Your task to perform on an android device: Search for energizer triple a on costco, select the first entry, add it to the cart, then select checkout. Image 0: 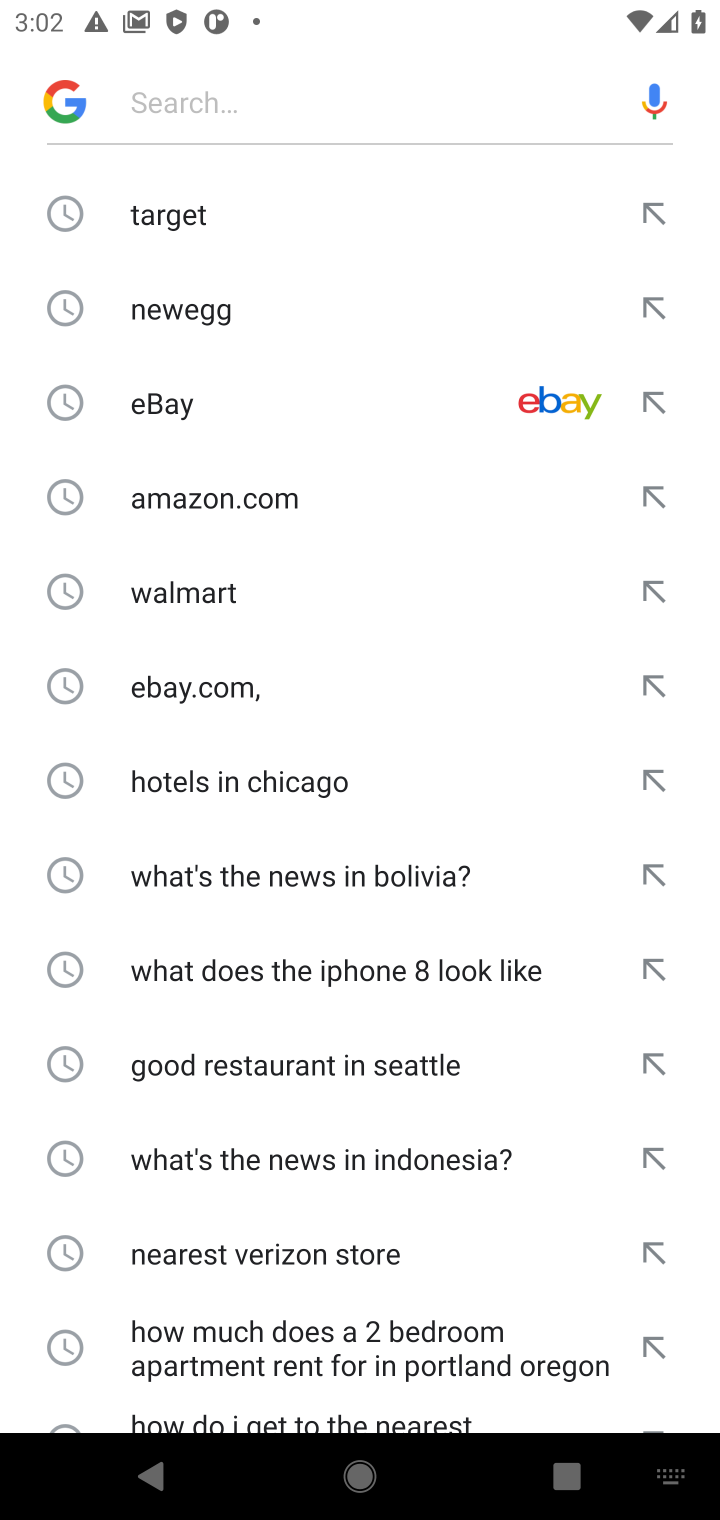
Step 0: type "costco"
Your task to perform on an android device: Search for energizer triple a on costco, select the first entry, add it to the cart, then select checkout. Image 1: 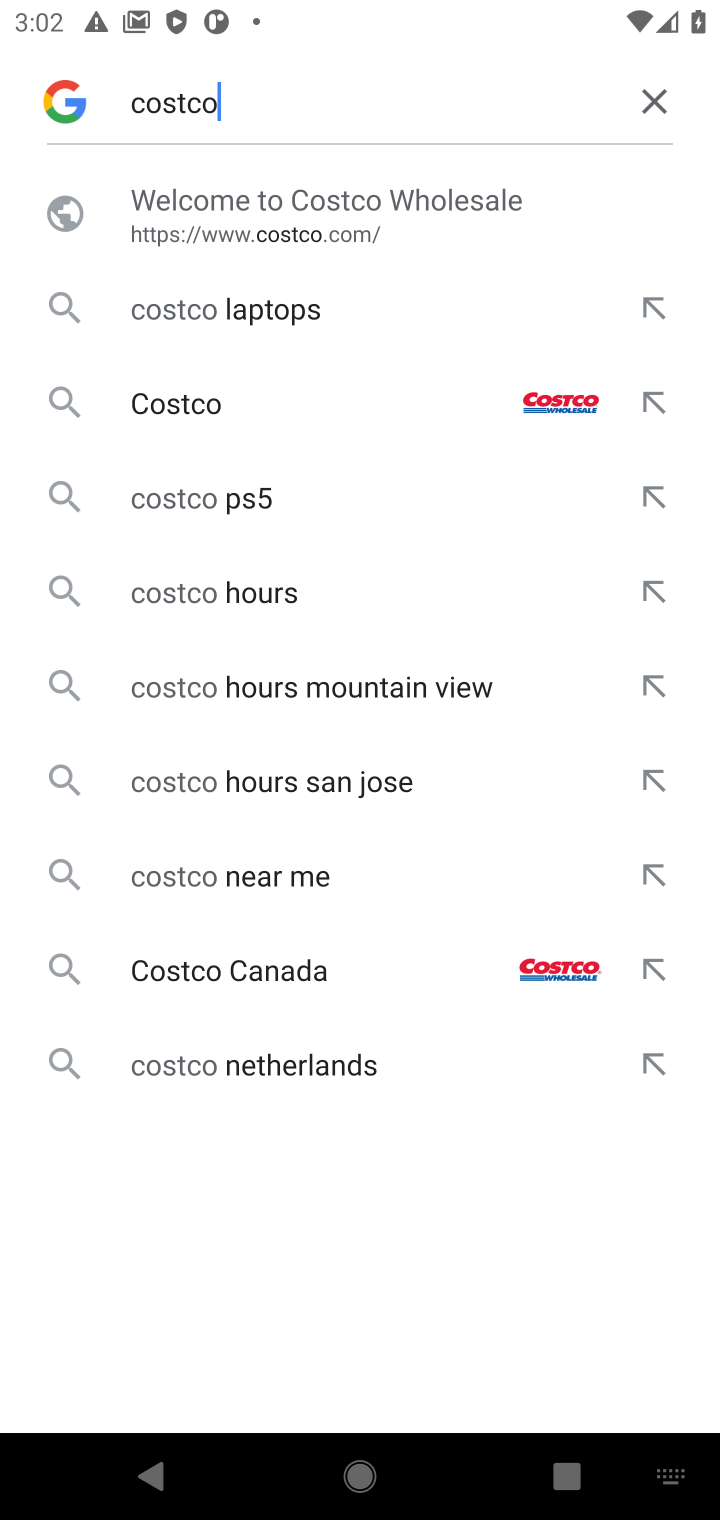
Step 1: click (197, 406)
Your task to perform on an android device: Search for energizer triple a on costco, select the first entry, add it to the cart, then select checkout. Image 2: 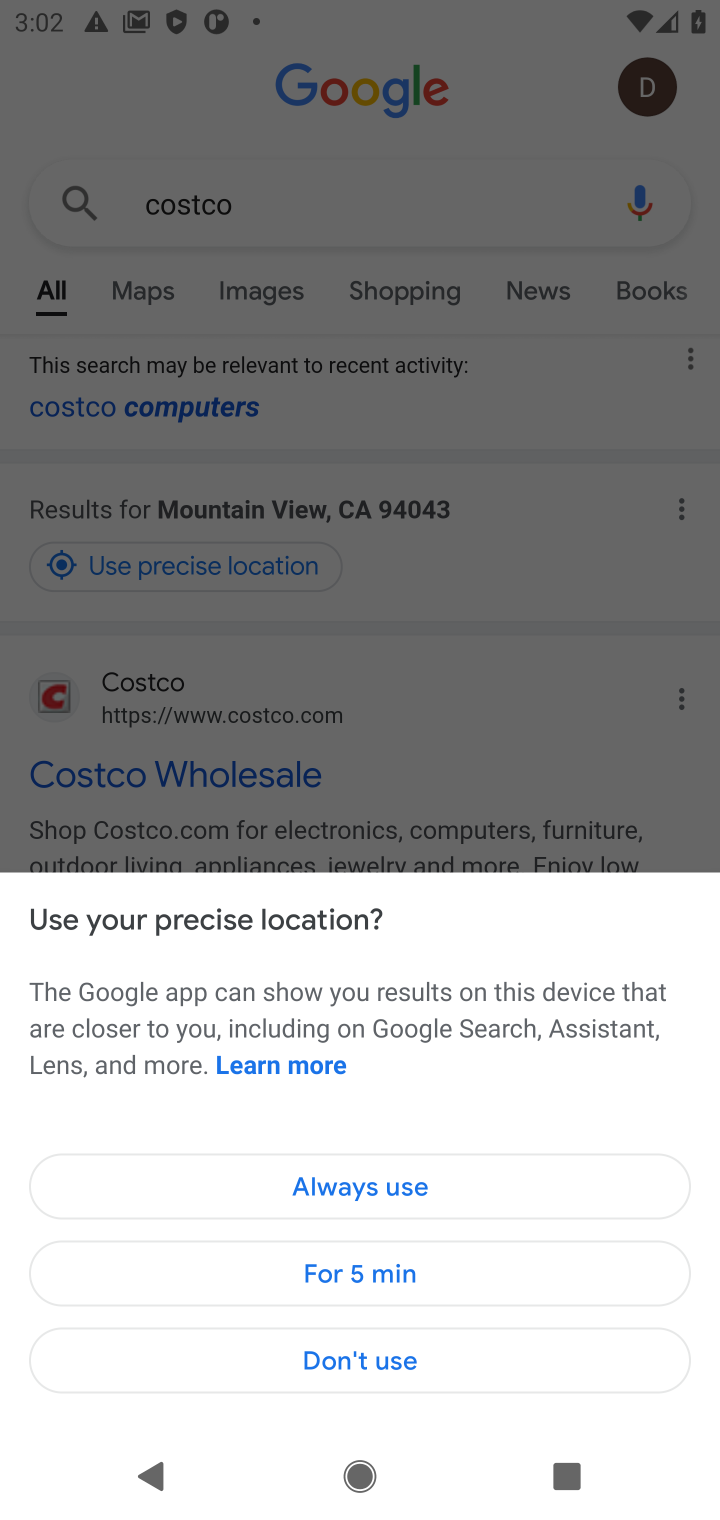
Step 2: click (345, 1361)
Your task to perform on an android device: Search for energizer triple a on costco, select the first entry, add it to the cart, then select checkout. Image 3: 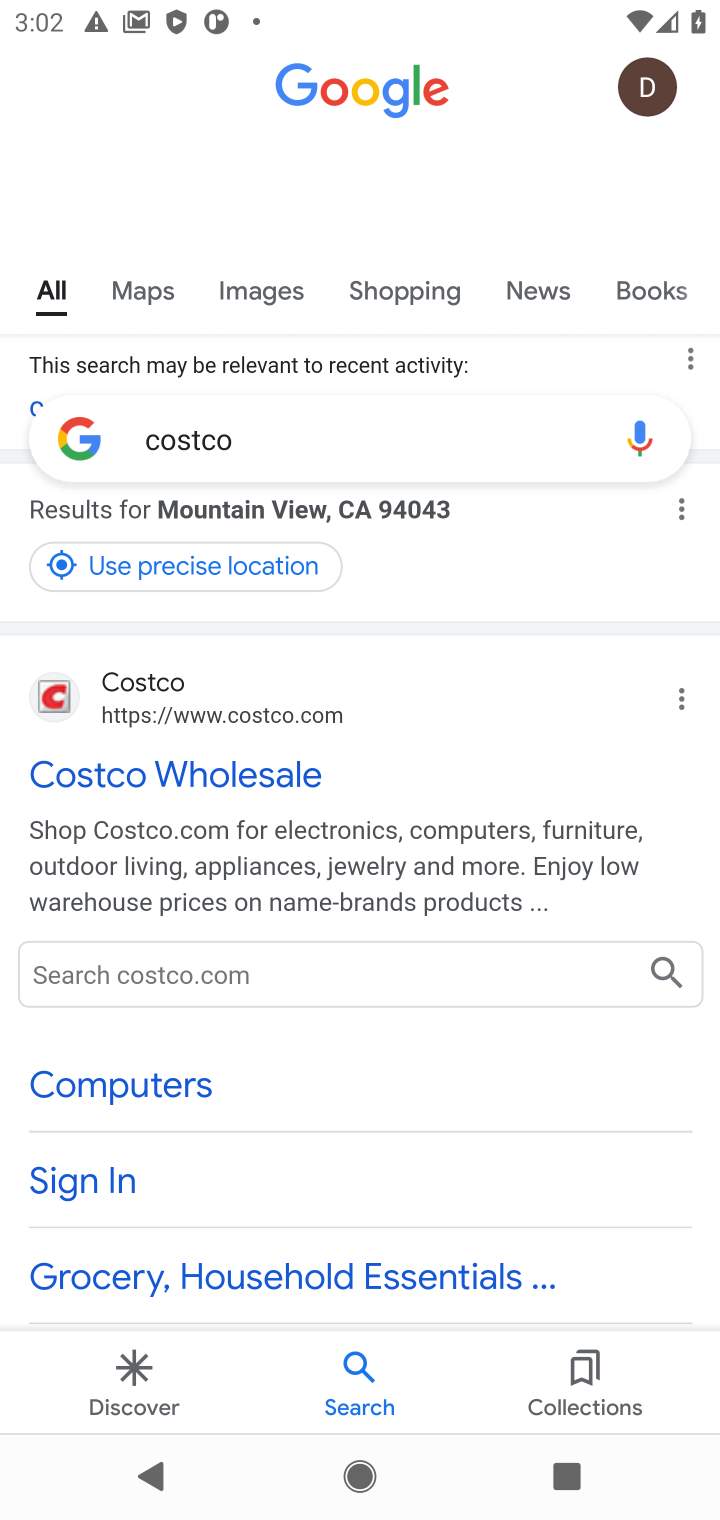
Step 3: click (172, 780)
Your task to perform on an android device: Search for energizer triple a on costco, select the first entry, add it to the cart, then select checkout. Image 4: 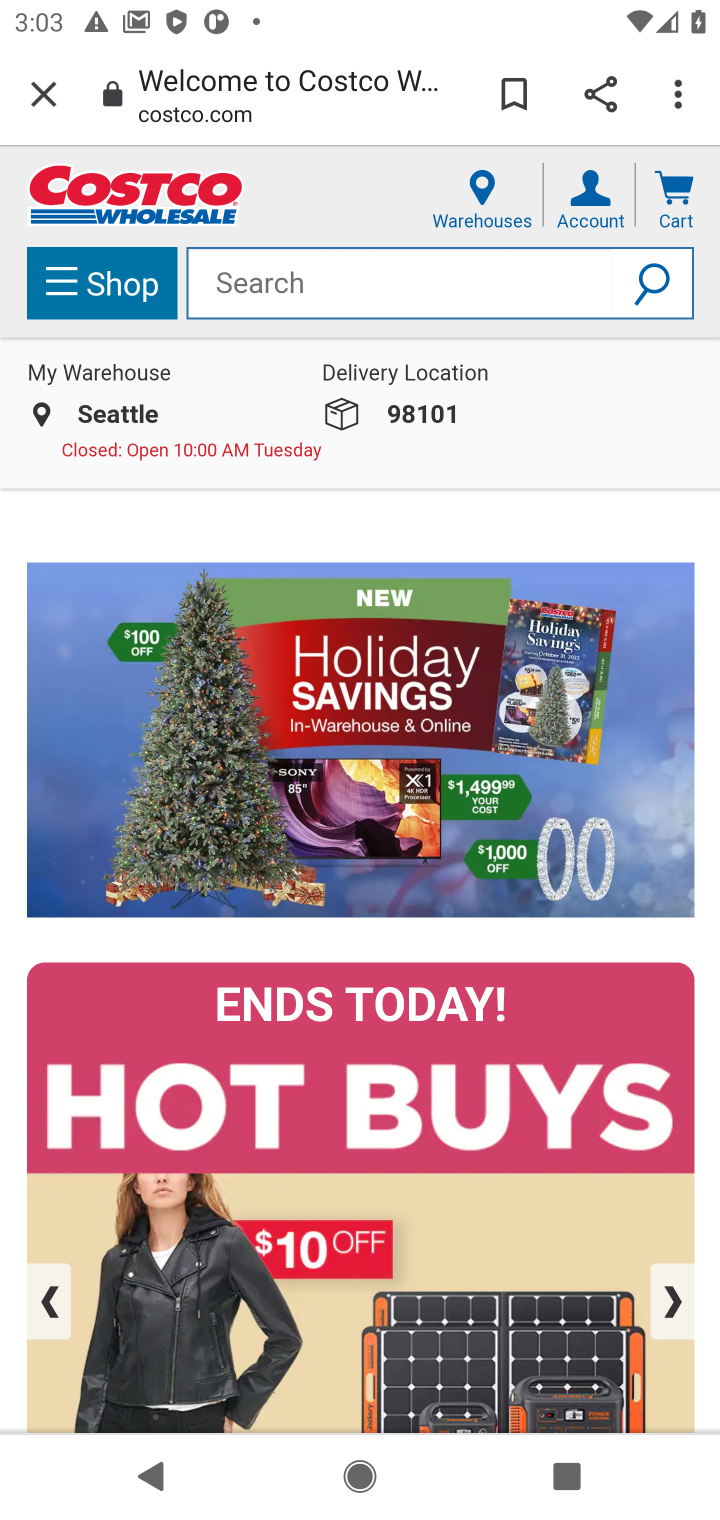
Step 4: click (348, 292)
Your task to perform on an android device: Search for energizer triple a on costco, select the first entry, add it to the cart, then select checkout. Image 5: 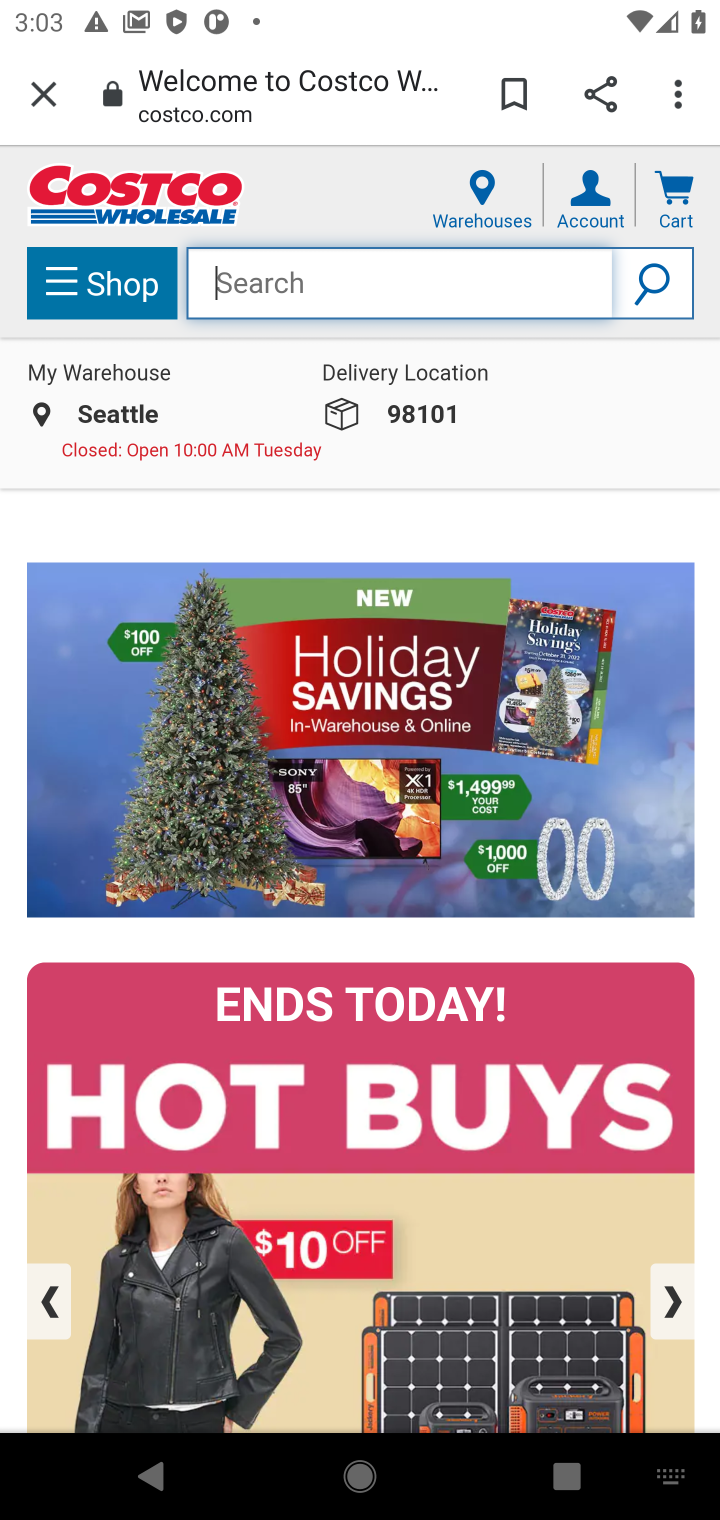
Step 5: type "energizer triple"
Your task to perform on an android device: Search for energizer triple a on costco, select the first entry, add it to the cart, then select checkout. Image 6: 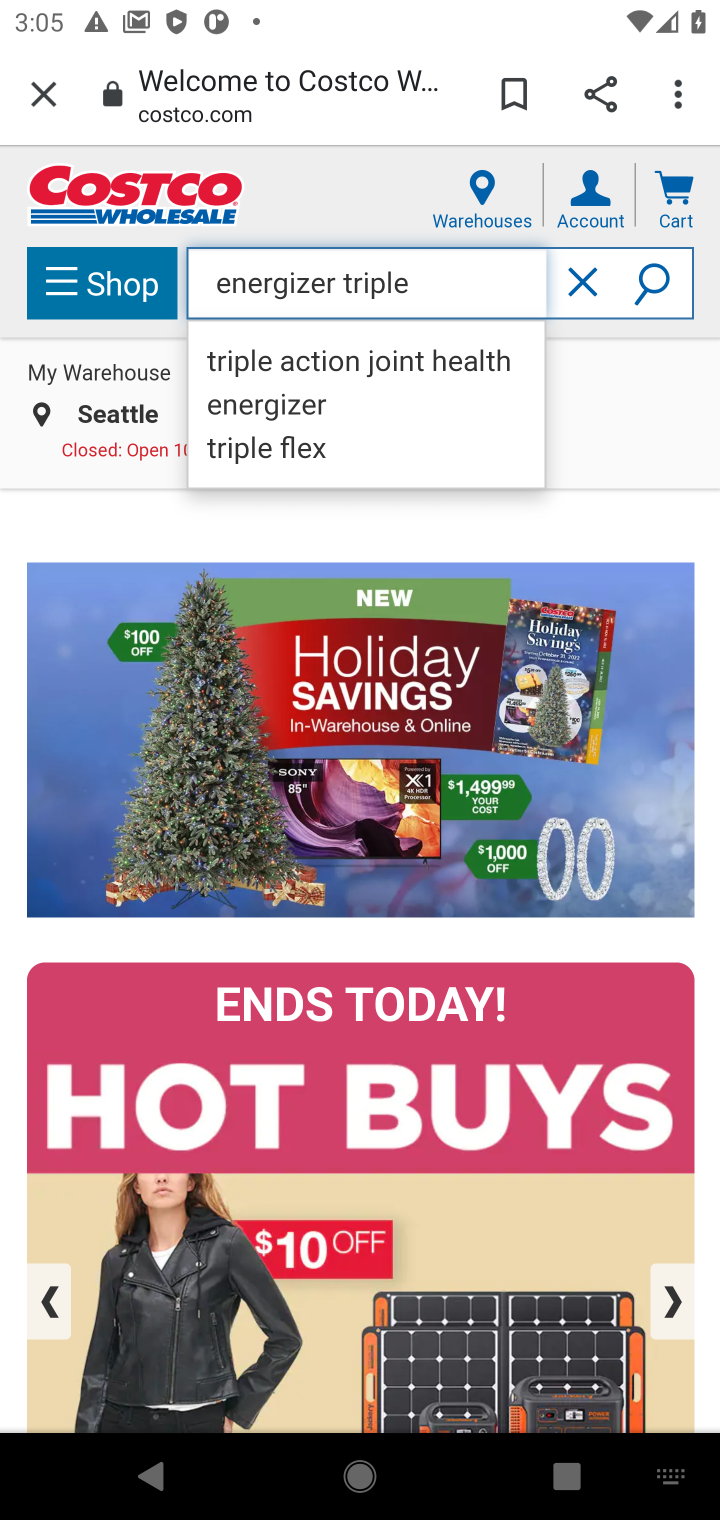
Step 6: click (367, 364)
Your task to perform on an android device: Search for energizer triple a on costco, select the first entry, add it to the cart, then select checkout. Image 7: 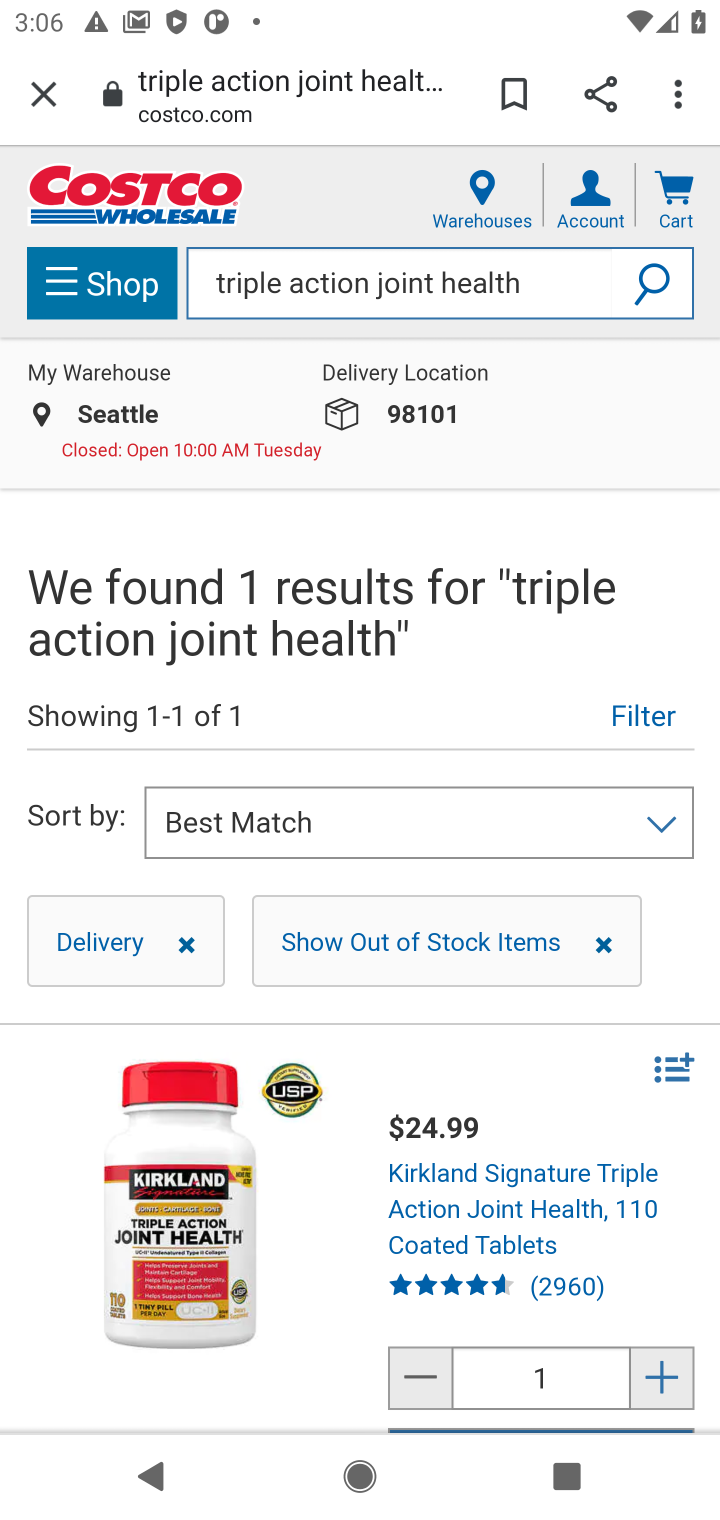
Step 7: drag from (209, 1261) to (204, 641)
Your task to perform on an android device: Search for energizer triple a on costco, select the first entry, add it to the cart, then select checkout. Image 8: 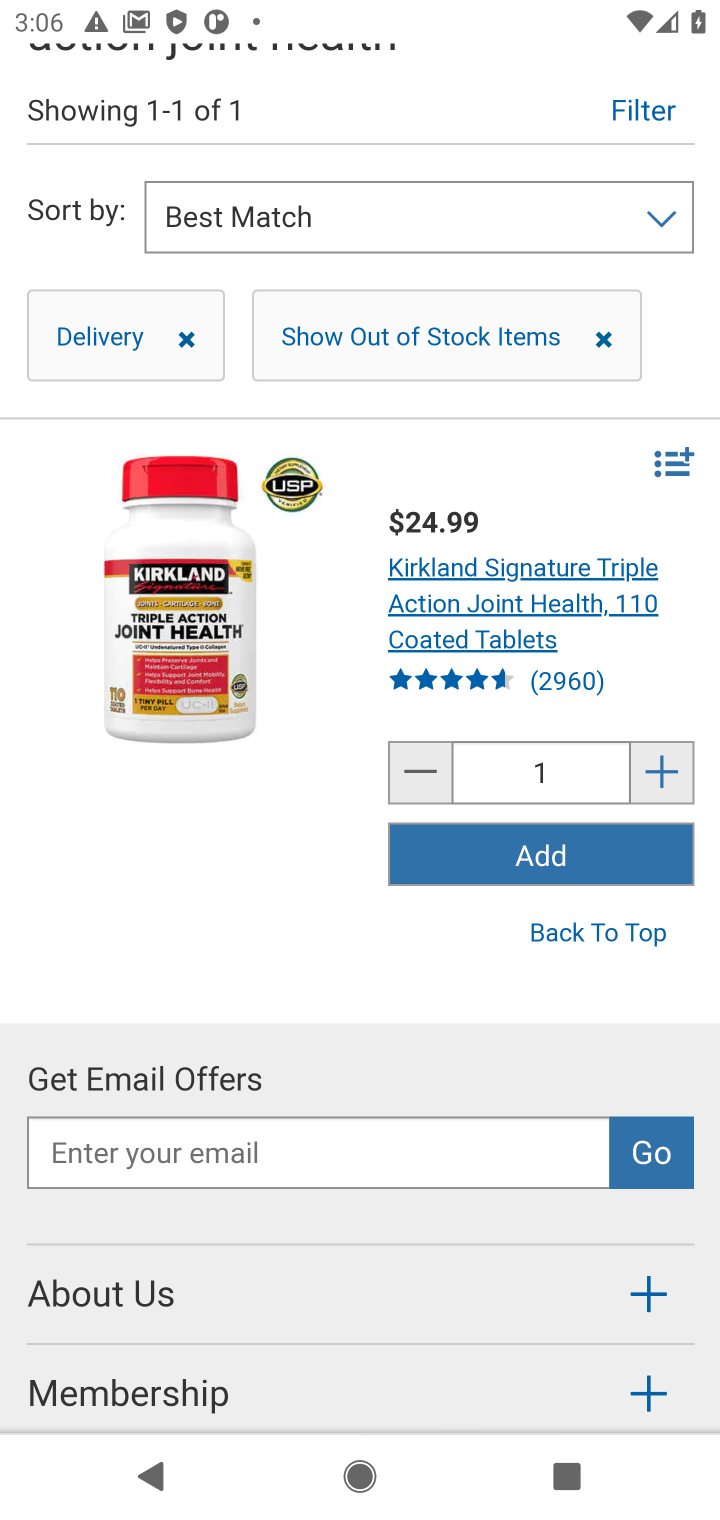
Step 8: click (463, 858)
Your task to perform on an android device: Search for energizer triple a on costco, select the first entry, add it to the cart, then select checkout. Image 9: 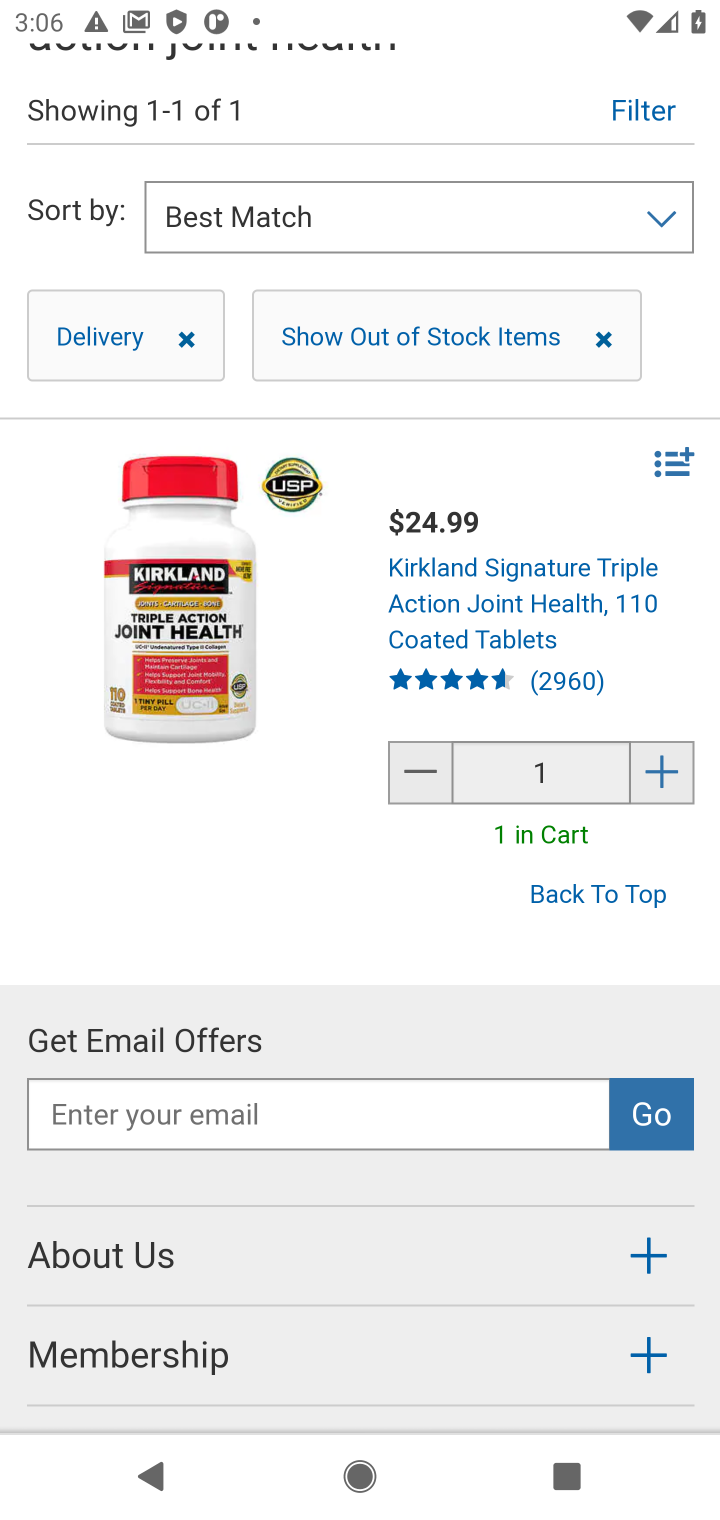
Step 9: drag from (512, 144) to (528, 868)
Your task to perform on an android device: Search for energizer triple a on costco, select the first entry, add it to the cart, then select checkout. Image 10: 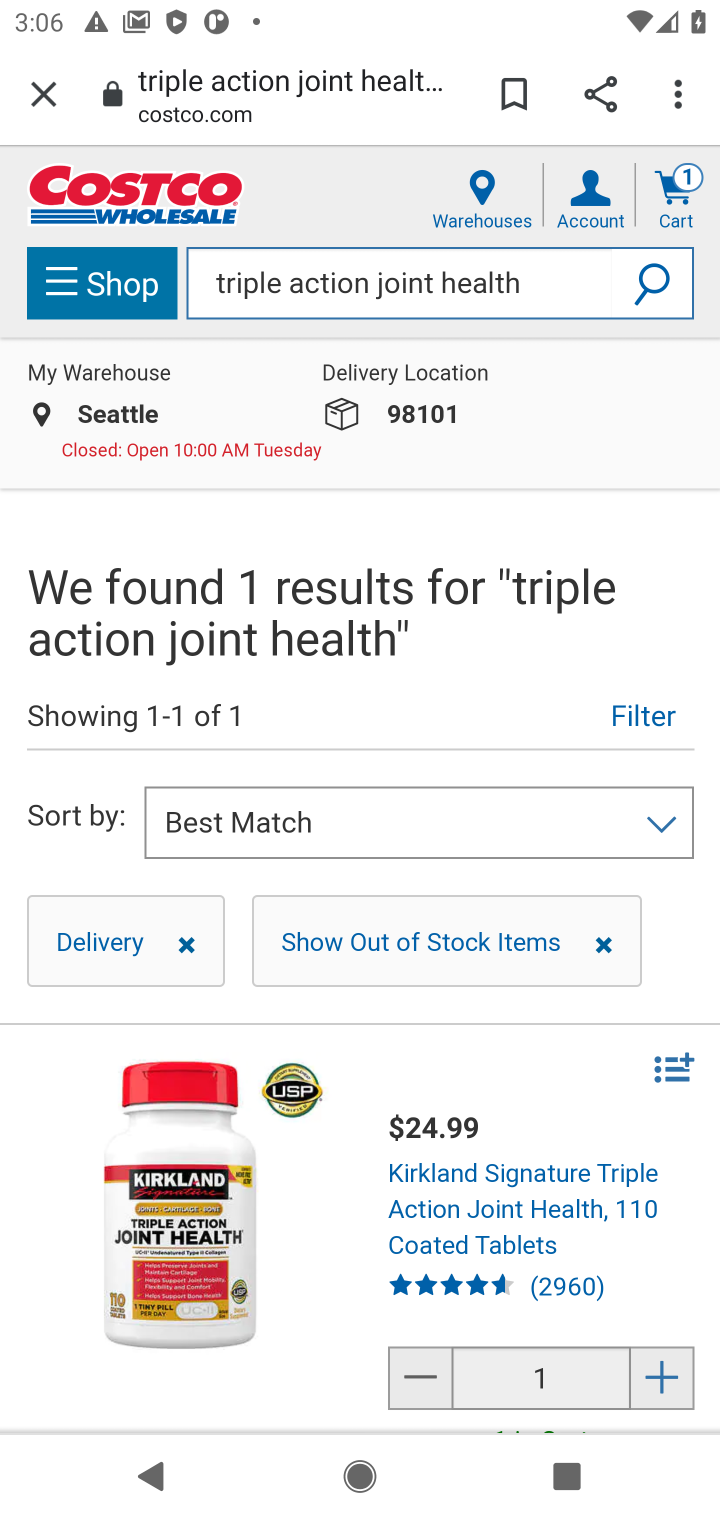
Step 10: click (679, 196)
Your task to perform on an android device: Search for energizer triple a on costco, select the first entry, add it to the cart, then select checkout. Image 11: 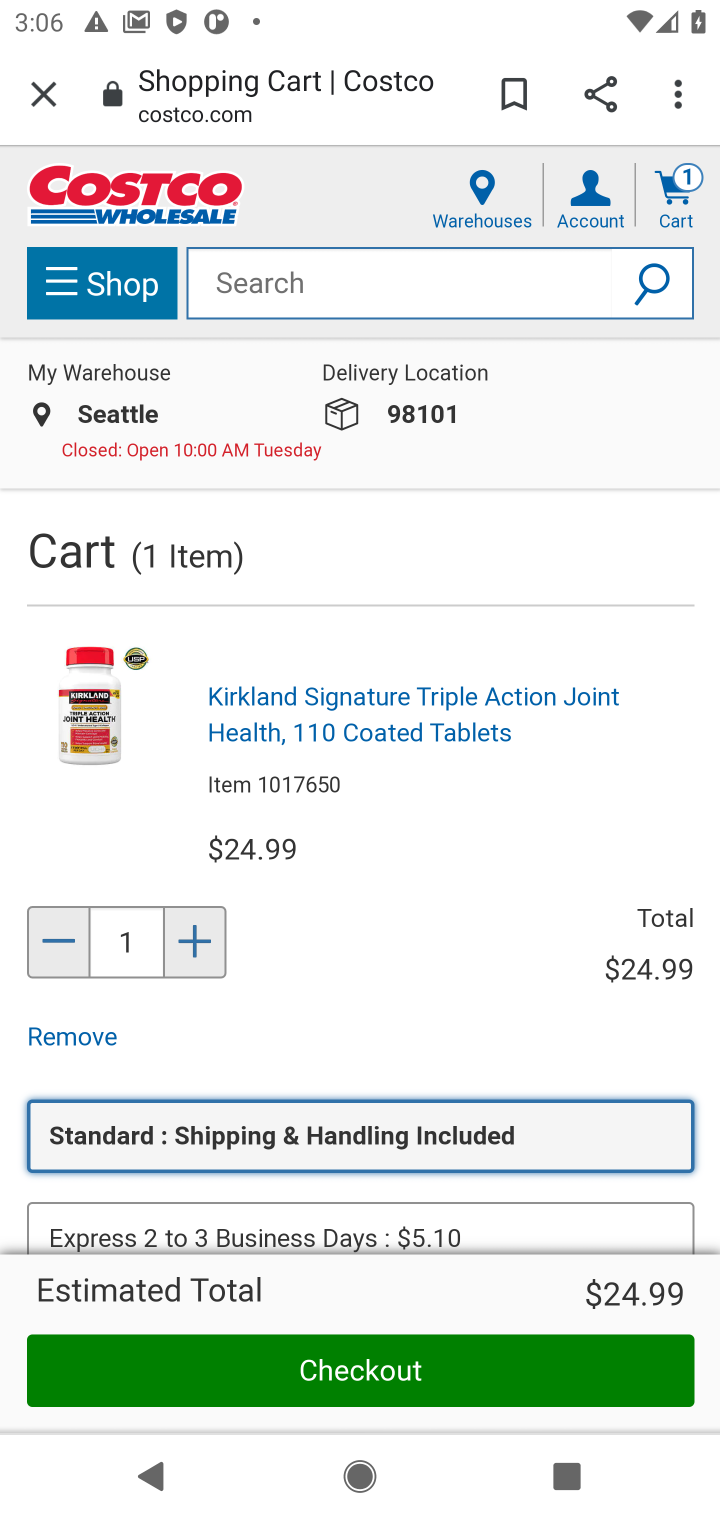
Step 11: click (382, 1363)
Your task to perform on an android device: Search for energizer triple a on costco, select the first entry, add it to the cart, then select checkout. Image 12: 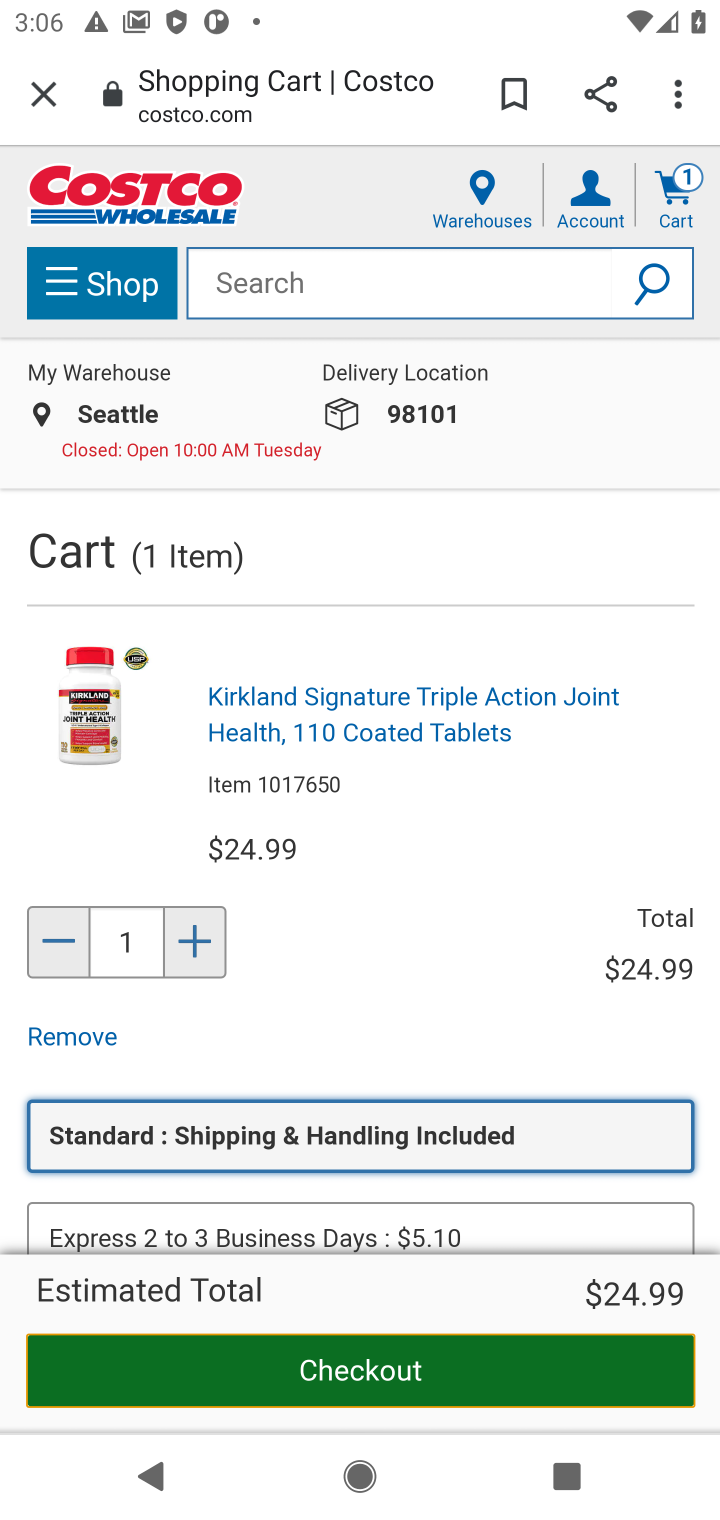
Step 12: task complete